Your task to perform on an android device: delete the emails in spam in the gmail app Image 0: 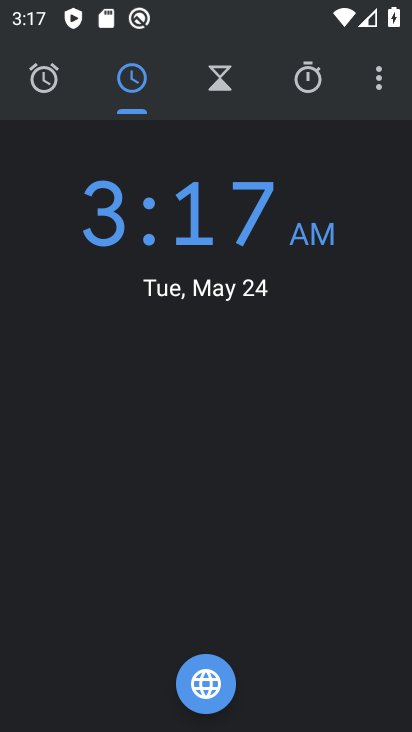
Step 0: press back button
Your task to perform on an android device: delete the emails in spam in the gmail app Image 1: 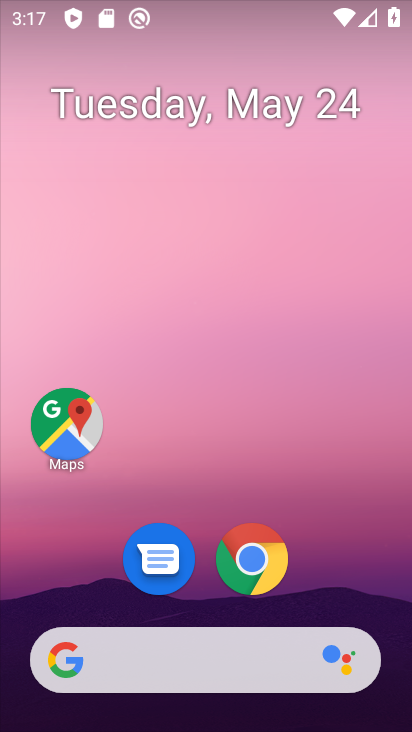
Step 1: drag from (331, 578) to (232, 224)
Your task to perform on an android device: delete the emails in spam in the gmail app Image 2: 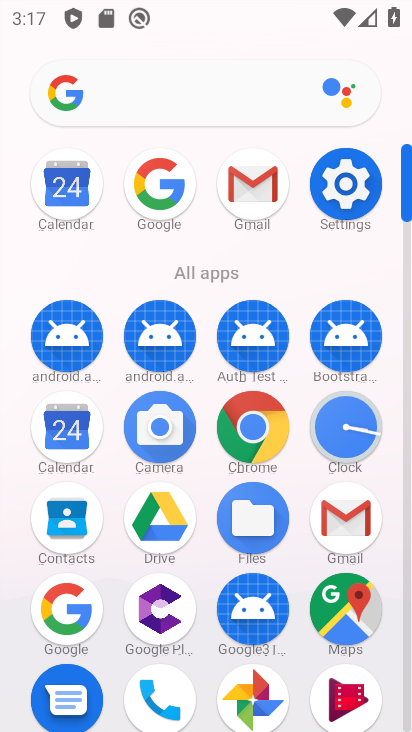
Step 2: click (254, 181)
Your task to perform on an android device: delete the emails in spam in the gmail app Image 3: 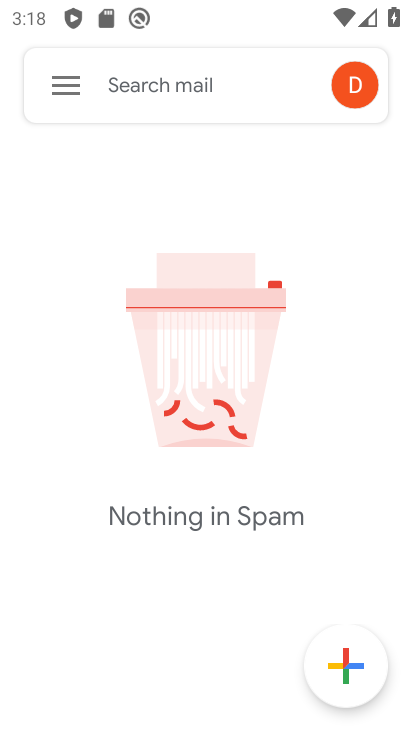
Step 3: click (66, 81)
Your task to perform on an android device: delete the emails in spam in the gmail app Image 4: 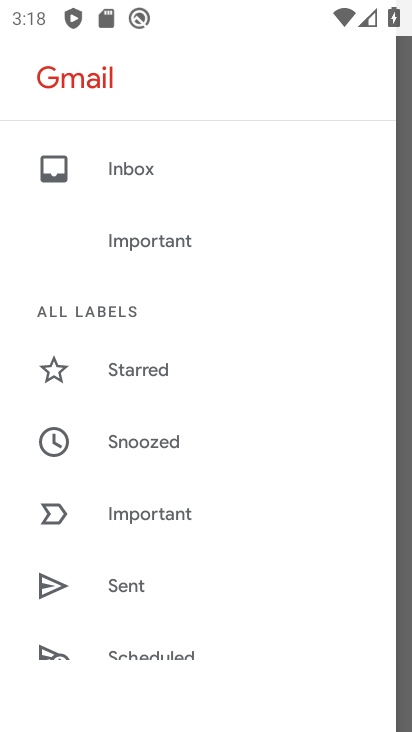
Step 4: drag from (122, 533) to (169, 441)
Your task to perform on an android device: delete the emails in spam in the gmail app Image 5: 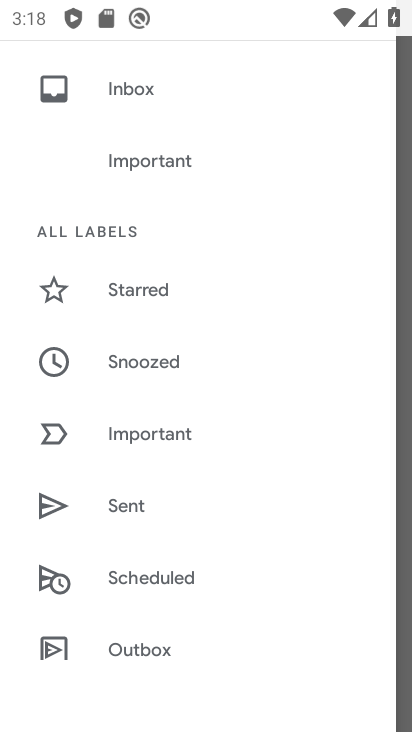
Step 5: drag from (123, 536) to (198, 421)
Your task to perform on an android device: delete the emails in spam in the gmail app Image 6: 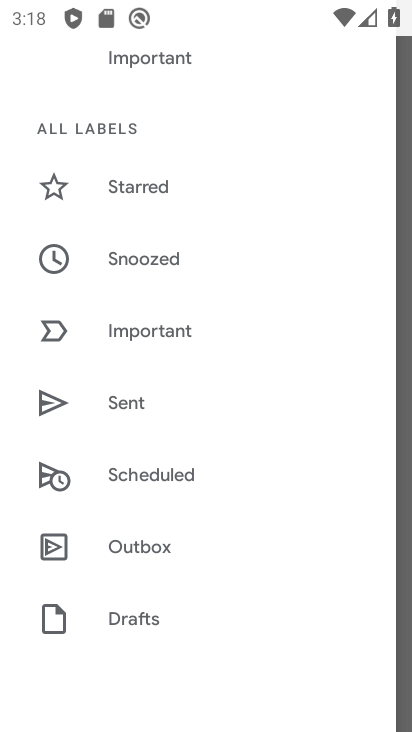
Step 6: drag from (132, 520) to (204, 416)
Your task to perform on an android device: delete the emails in spam in the gmail app Image 7: 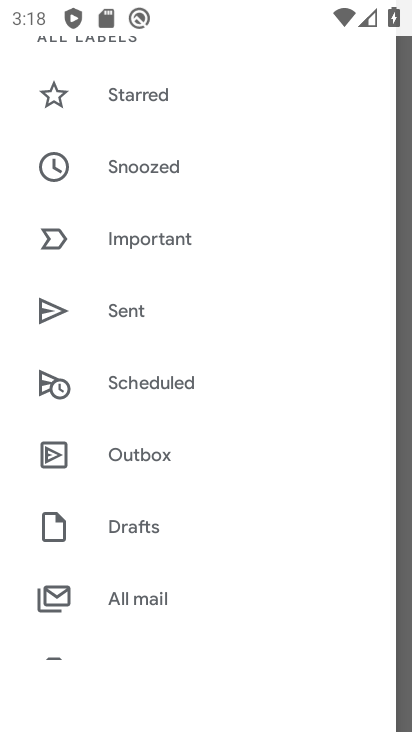
Step 7: drag from (126, 553) to (210, 442)
Your task to perform on an android device: delete the emails in spam in the gmail app Image 8: 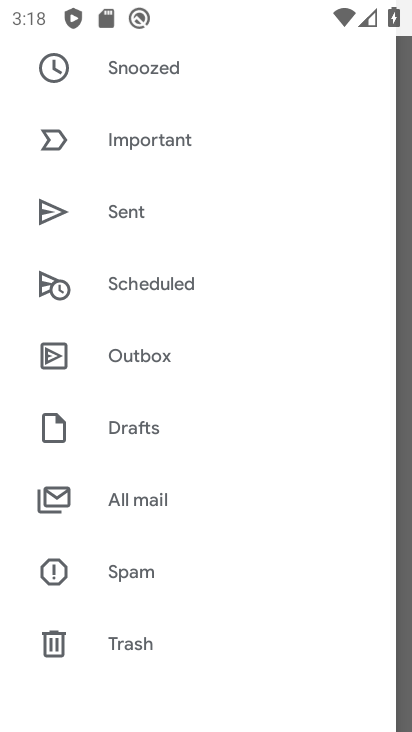
Step 8: click (132, 574)
Your task to perform on an android device: delete the emails in spam in the gmail app Image 9: 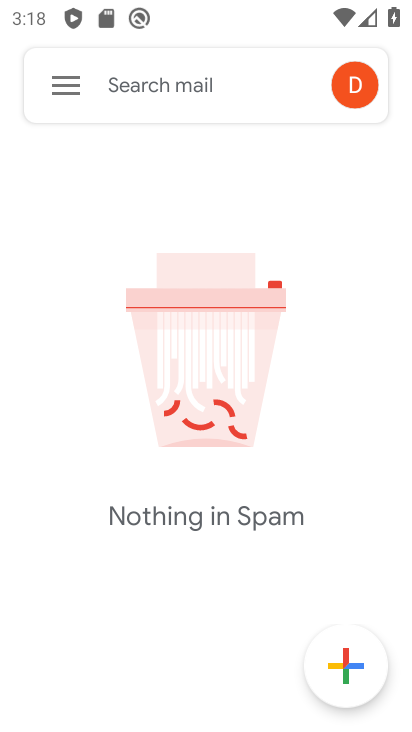
Step 9: task complete